Your task to perform on an android device: Search for the best burger restaurants on Maps Image 0: 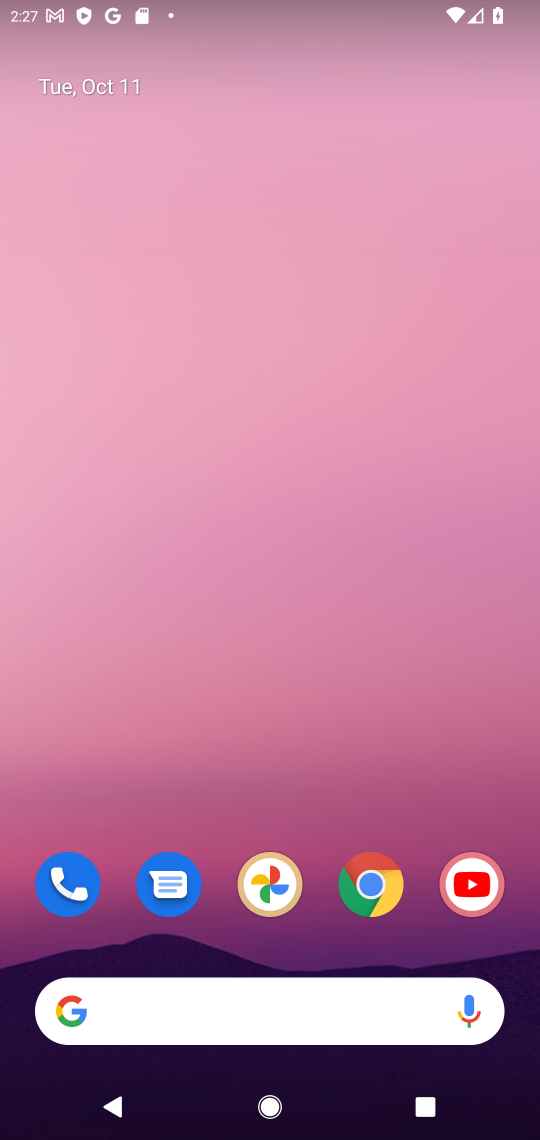
Step 0: drag from (177, 1023) to (342, 142)
Your task to perform on an android device: Search for the best burger restaurants on Maps Image 1: 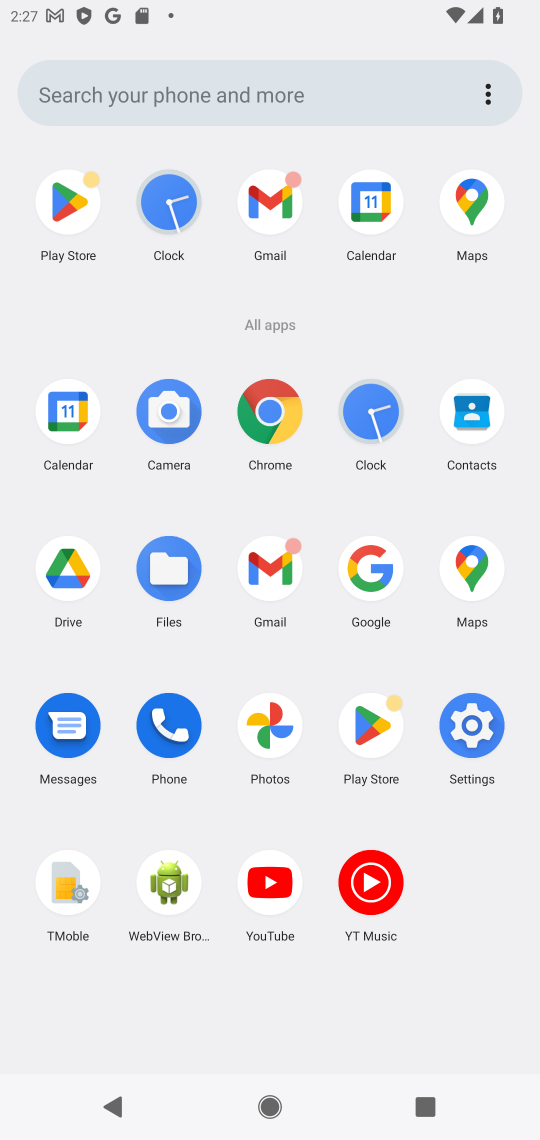
Step 1: click (472, 196)
Your task to perform on an android device: Search for the best burger restaurants on Maps Image 2: 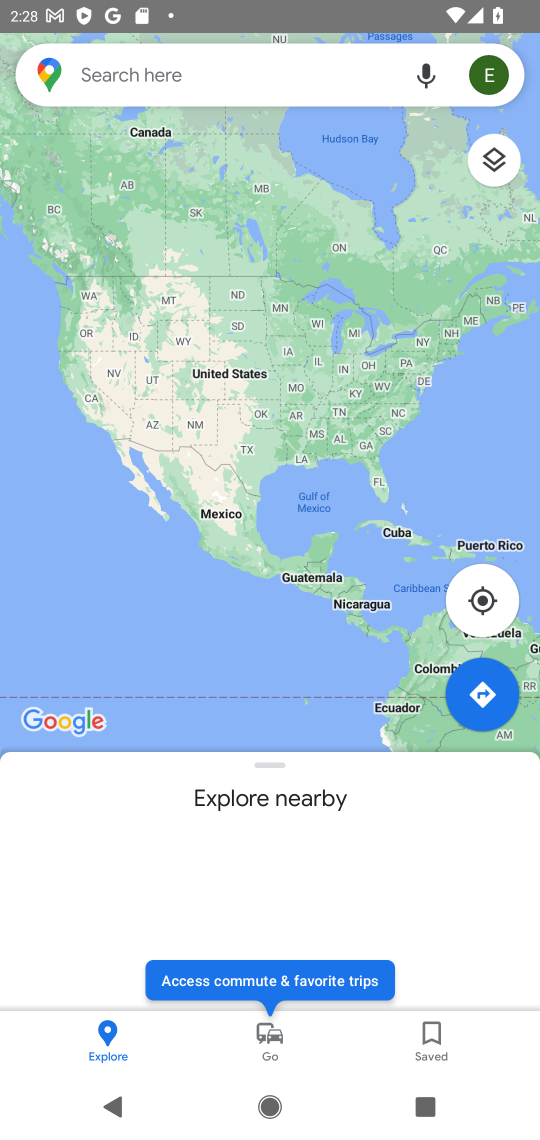
Step 2: click (292, 81)
Your task to perform on an android device: Search for the best burger restaurants on Maps Image 3: 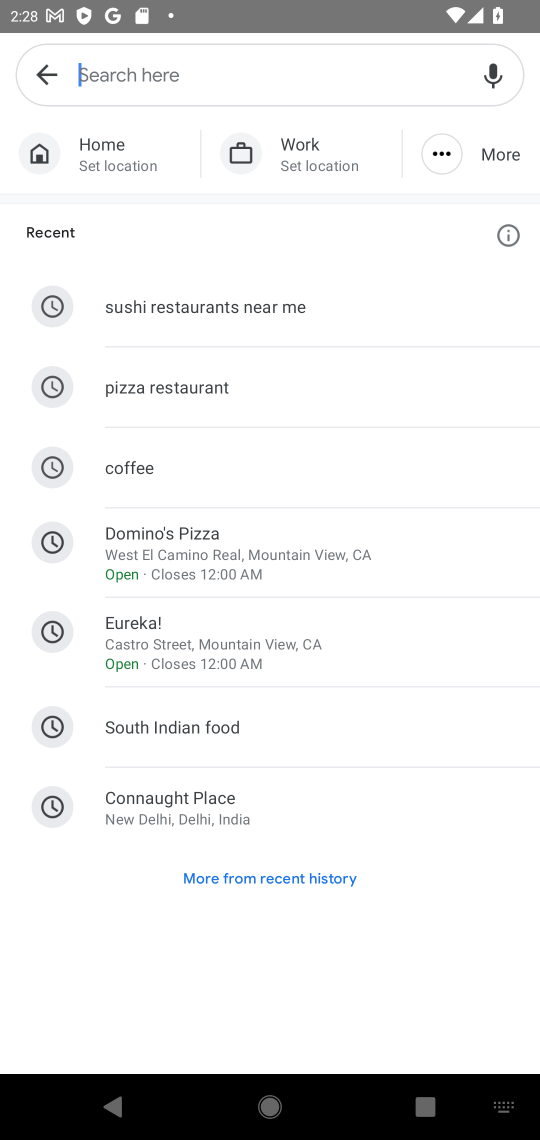
Step 3: type "best burger restaurants "
Your task to perform on an android device: Search for the best burger restaurants on Maps Image 4: 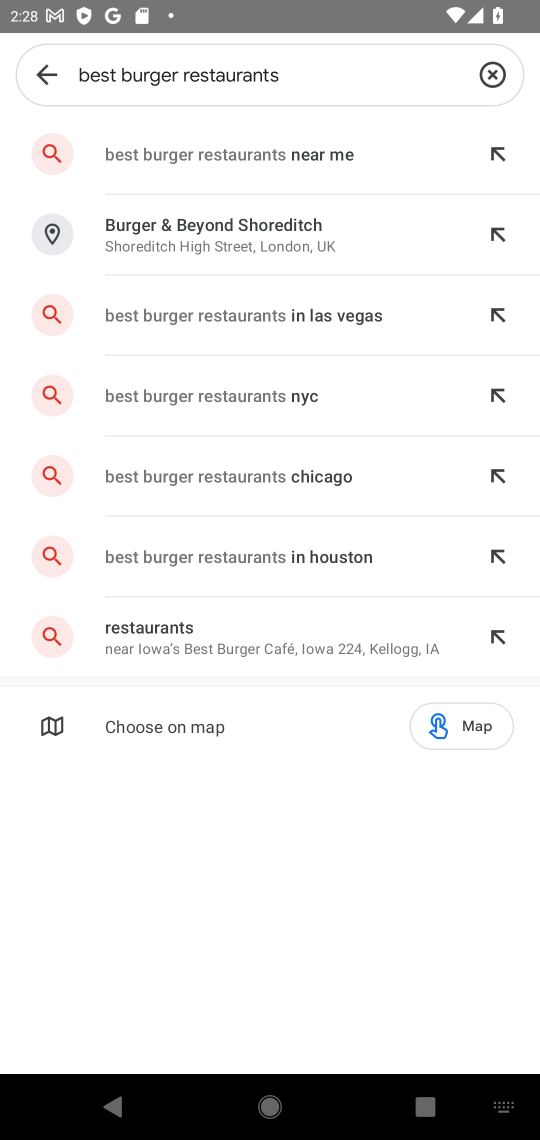
Step 4: click (242, 156)
Your task to perform on an android device: Search for the best burger restaurants on Maps Image 5: 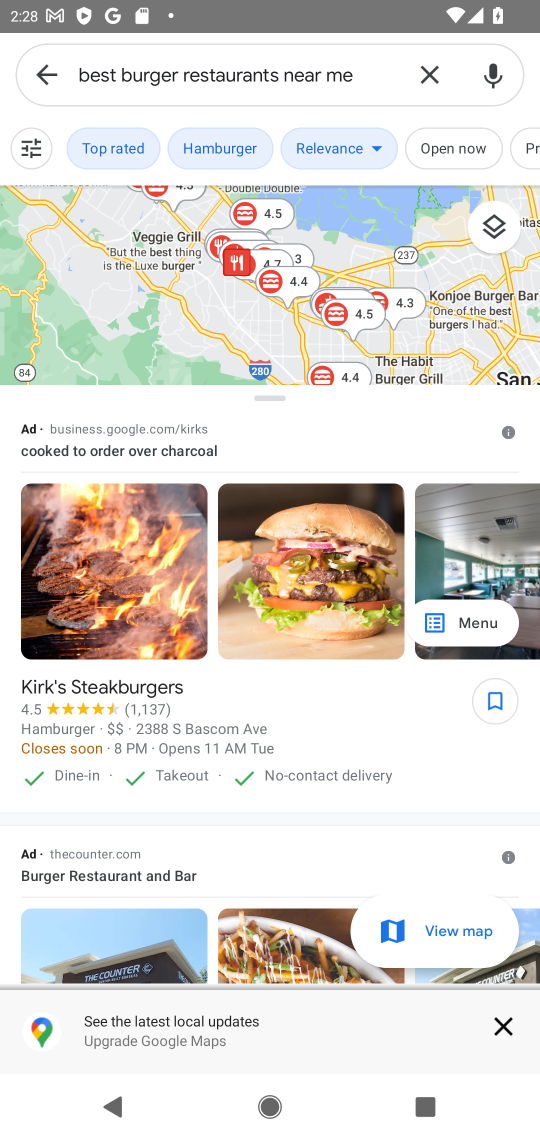
Step 5: task complete